Your task to perform on an android device: open a new tab in the chrome app Image 0: 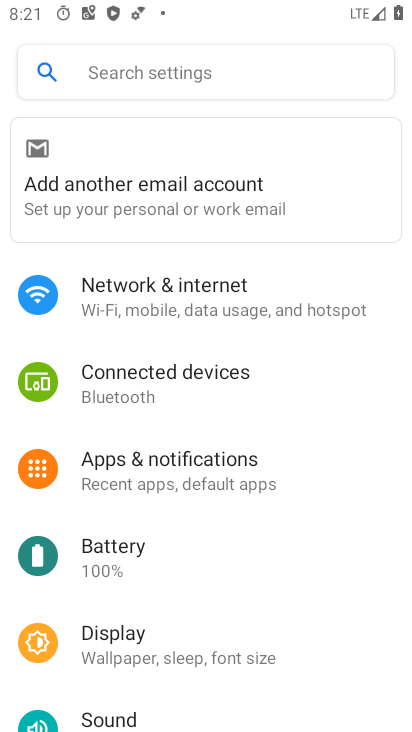
Step 0: press home button
Your task to perform on an android device: open a new tab in the chrome app Image 1: 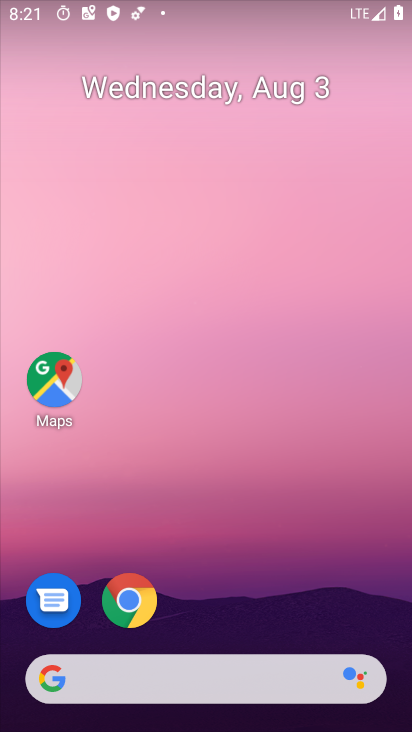
Step 1: click (134, 596)
Your task to perform on an android device: open a new tab in the chrome app Image 2: 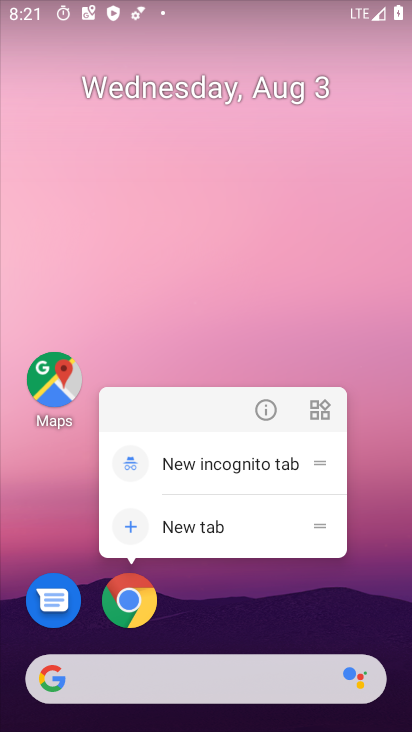
Step 2: click (133, 595)
Your task to perform on an android device: open a new tab in the chrome app Image 3: 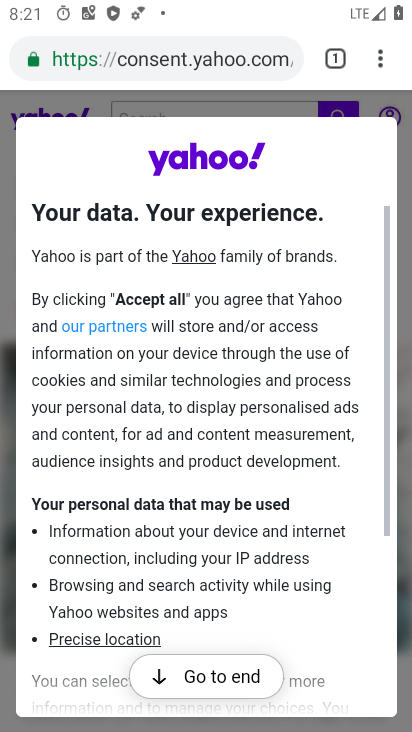
Step 3: click (379, 52)
Your task to perform on an android device: open a new tab in the chrome app Image 4: 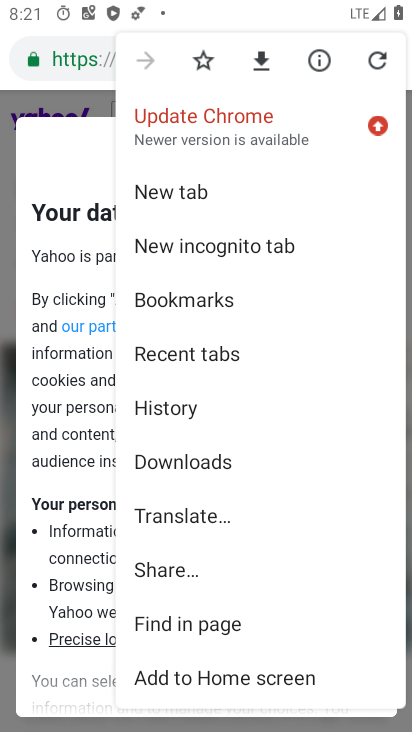
Step 4: click (197, 190)
Your task to perform on an android device: open a new tab in the chrome app Image 5: 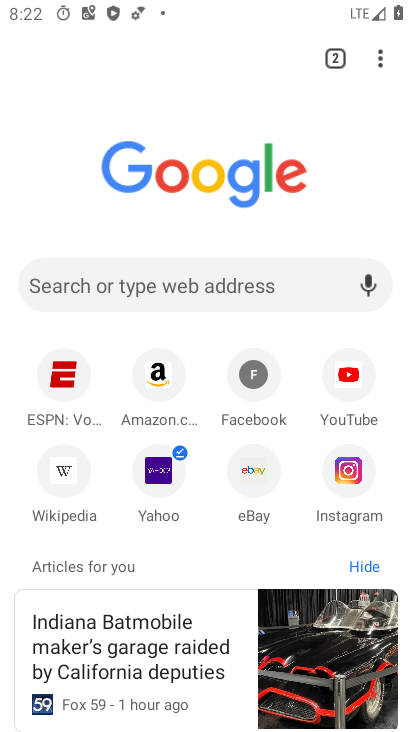
Step 5: task complete